Your task to perform on an android device: Do I have any events today? Image 0: 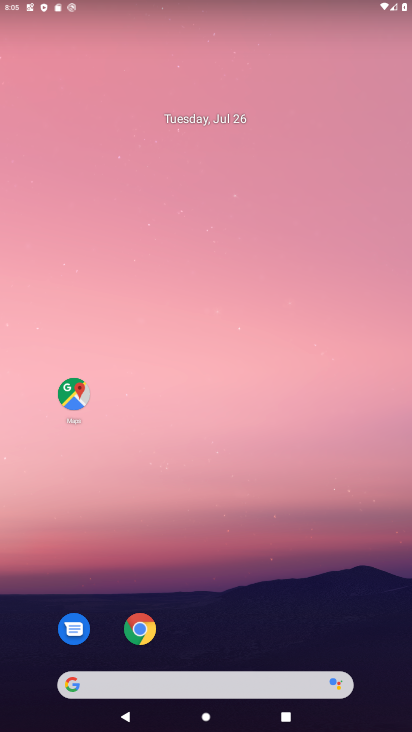
Step 0: drag from (206, 654) to (204, 1)
Your task to perform on an android device: Do I have any events today? Image 1: 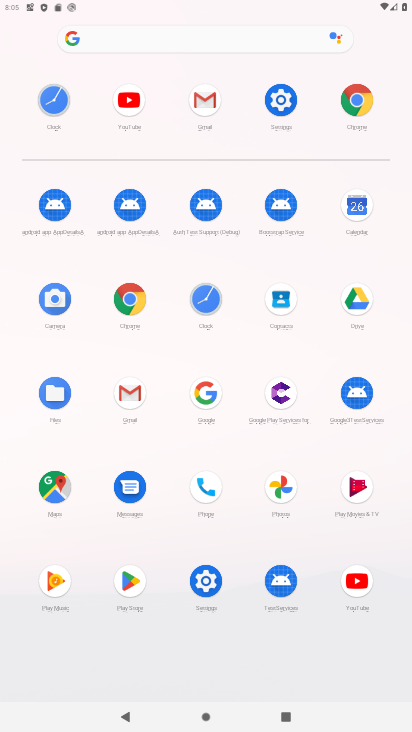
Step 1: click (357, 207)
Your task to perform on an android device: Do I have any events today? Image 2: 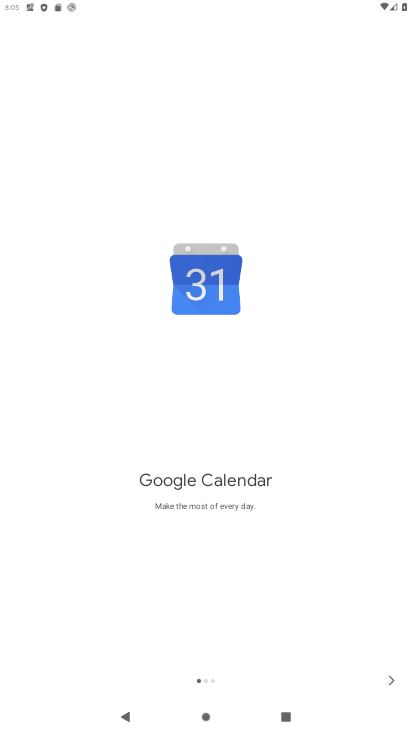
Step 2: click (383, 676)
Your task to perform on an android device: Do I have any events today? Image 3: 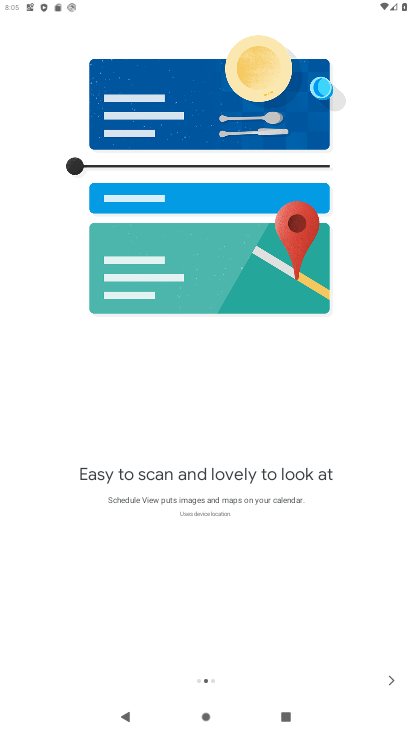
Step 3: click (388, 679)
Your task to perform on an android device: Do I have any events today? Image 4: 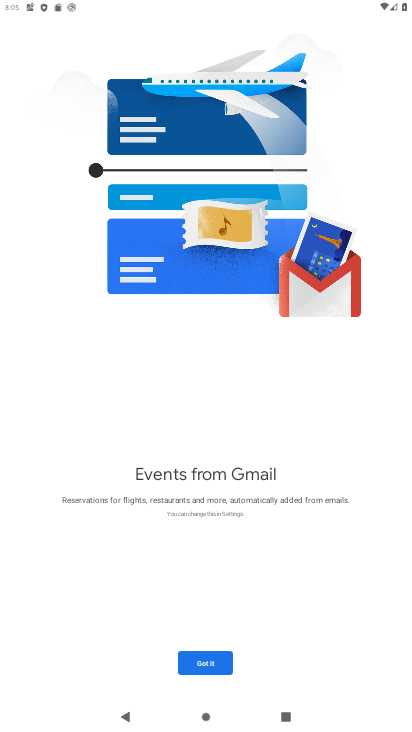
Step 4: click (212, 660)
Your task to perform on an android device: Do I have any events today? Image 5: 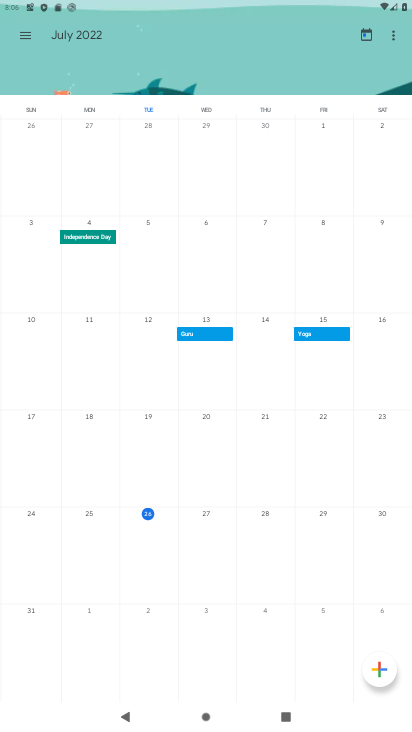
Step 5: click (23, 38)
Your task to perform on an android device: Do I have any events today? Image 6: 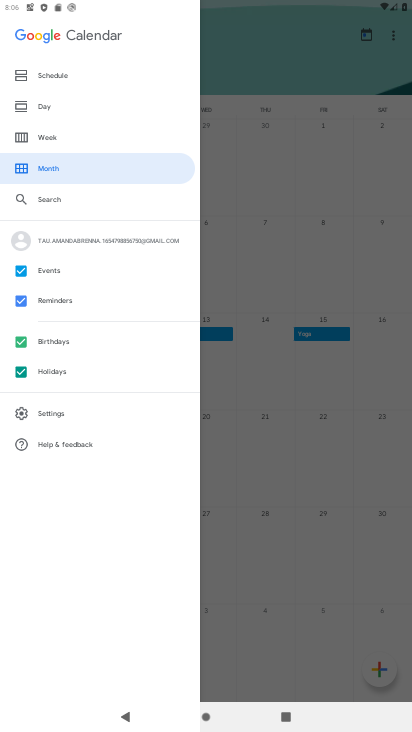
Step 6: click (45, 99)
Your task to perform on an android device: Do I have any events today? Image 7: 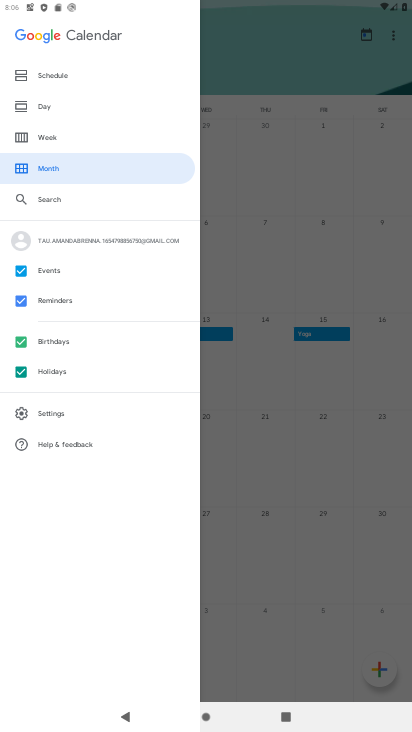
Step 7: click (42, 105)
Your task to perform on an android device: Do I have any events today? Image 8: 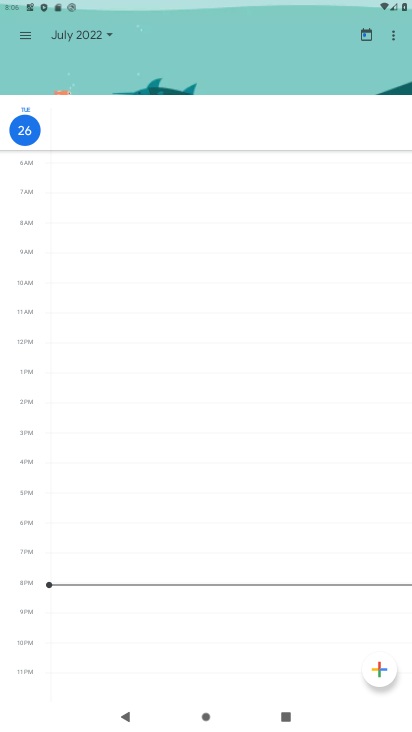
Step 8: drag from (31, 613) to (41, 303)
Your task to perform on an android device: Do I have any events today? Image 9: 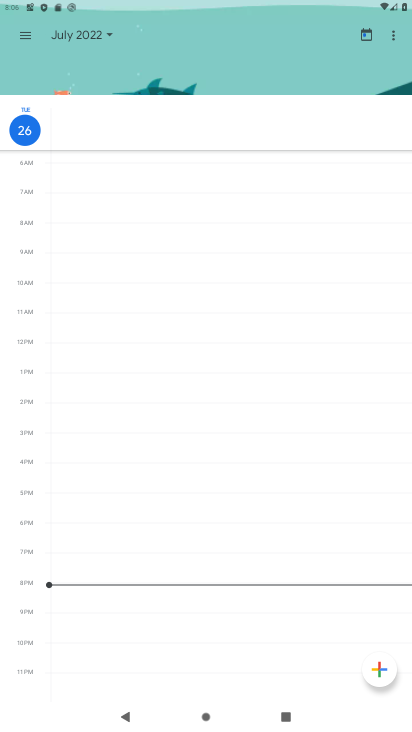
Step 9: click (24, 25)
Your task to perform on an android device: Do I have any events today? Image 10: 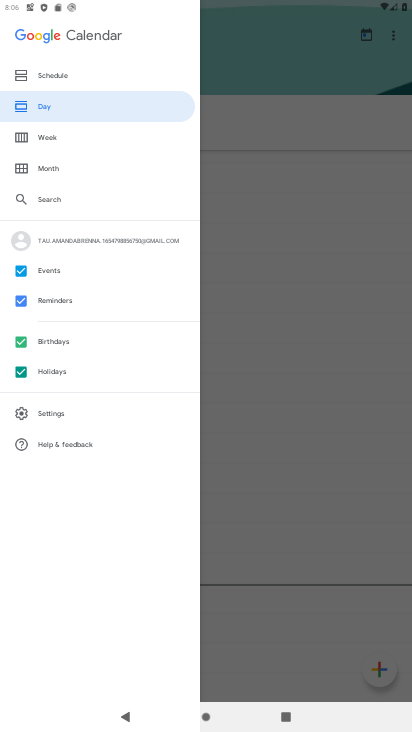
Step 10: click (18, 300)
Your task to perform on an android device: Do I have any events today? Image 11: 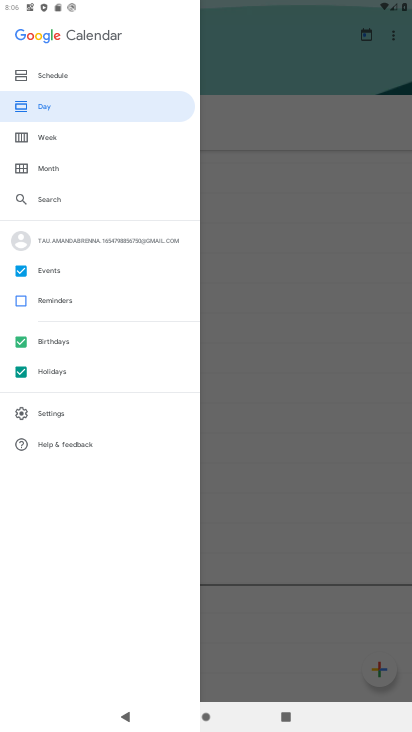
Step 11: click (18, 344)
Your task to perform on an android device: Do I have any events today? Image 12: 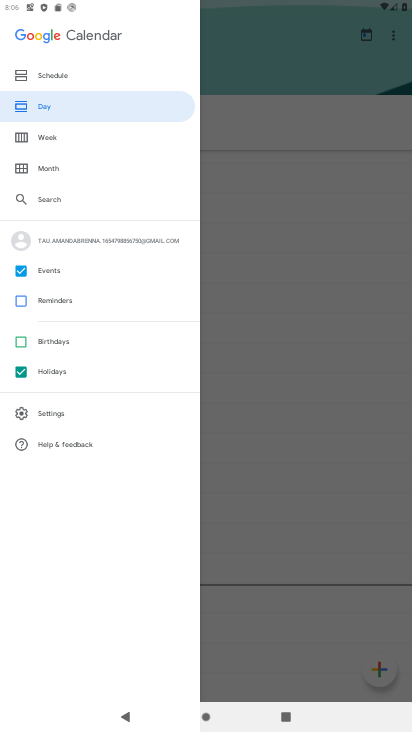
Step 12: click (20, 375)
Your task to perform on an android device: Do I have any events today? Image 13: 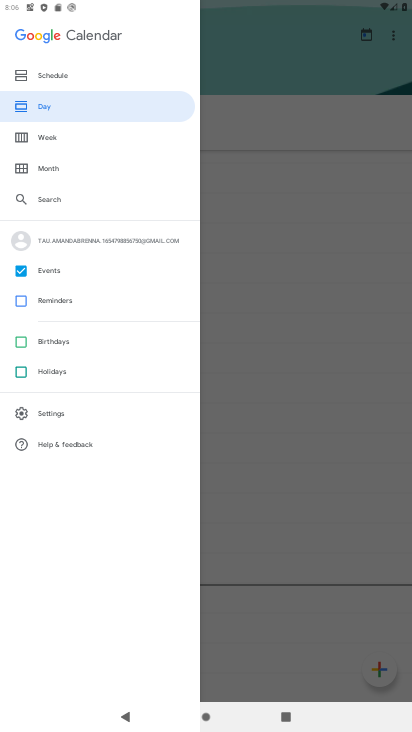
Step 13: click (26, 105)
Your task to perform on an android device: Do I have any events today? Image 14: 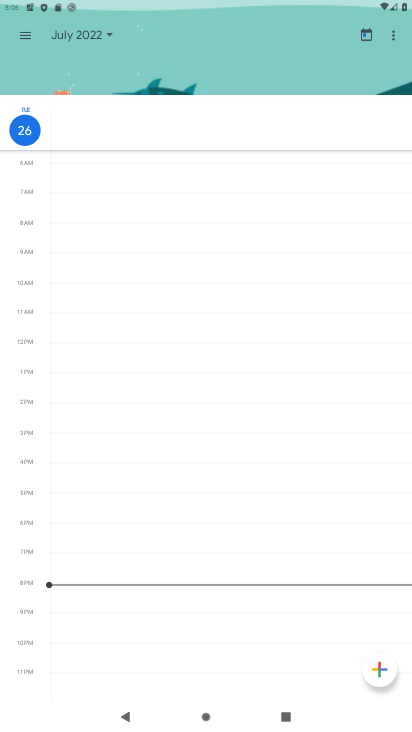
Step 14: task complete